Your task to perform on an android device: choose inbox layout in the gmail app Image 0: 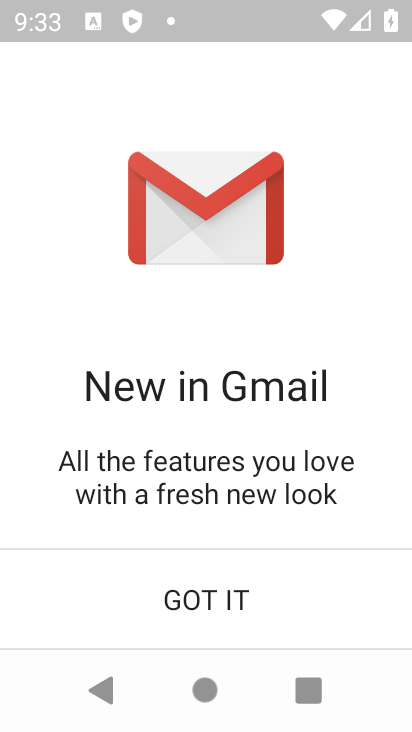
Step 0: click (200, 604)
Your task to perform on an android device: choose inbox layout in the gmail app Image 1: 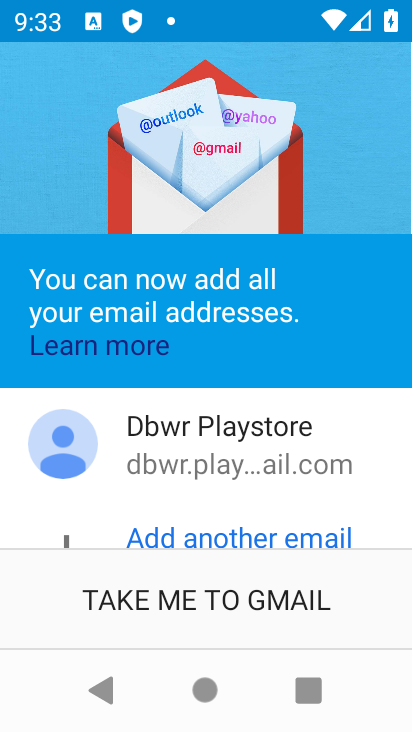
Step 1: drag from (219, 621) to (233, 353)
Your task to perform on an android device: choose inbox layout in the gmail app Image 2: 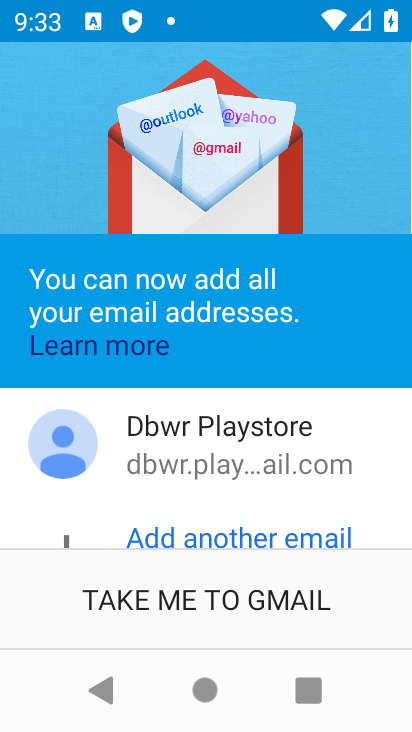
Step 2: click (289, 594)
Your task to perform on an android device: choose inbox layout in the gmail app Image 3: 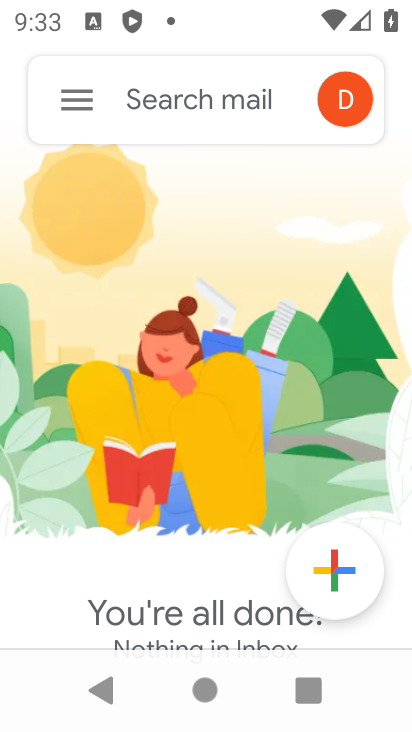
Step 3: click (75, 96)
Your task to perform on an android device: choose inbox layout in the gmail app Image 4: 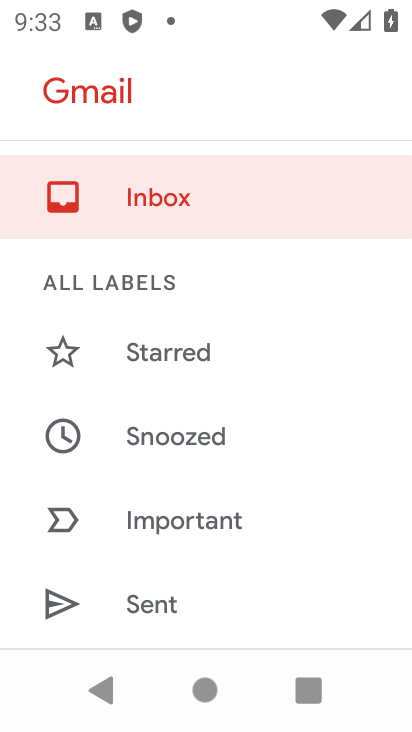
Step 4: drag from (287, 554) to (300, 114)
Your task to perform on an android device: choose inbox layout in the gmail app Image 5: 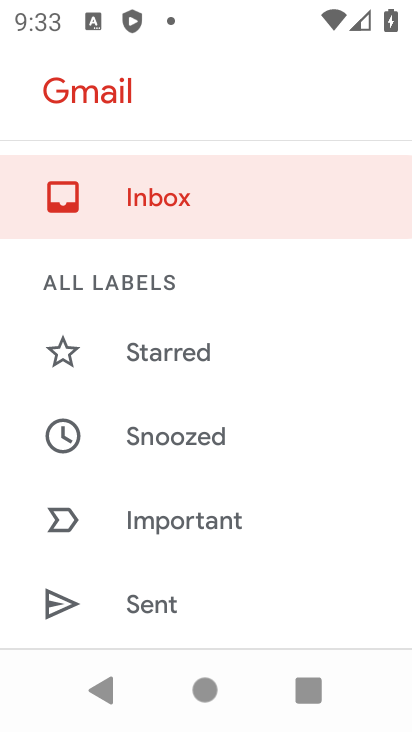
Step 5: drag from (197, 566) to (212, 121)
Your task to perform on an android device: choose inbox layout in the gmail app Image 6: 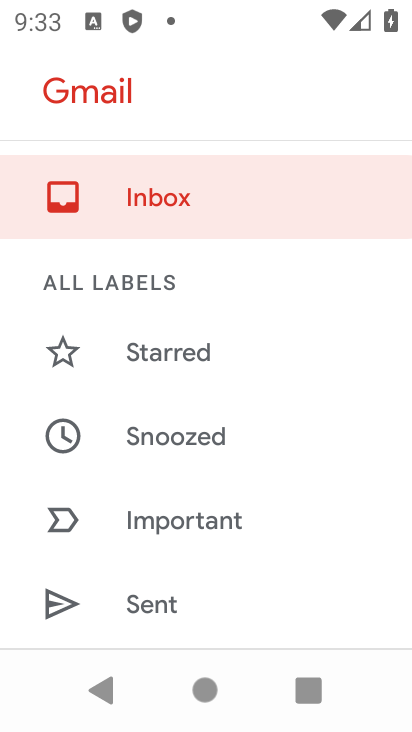
Step 6: drag from (213, 575) to (286, 181)
Your task to perform on an android device: choose inbox layout in the gmail app Image 7: 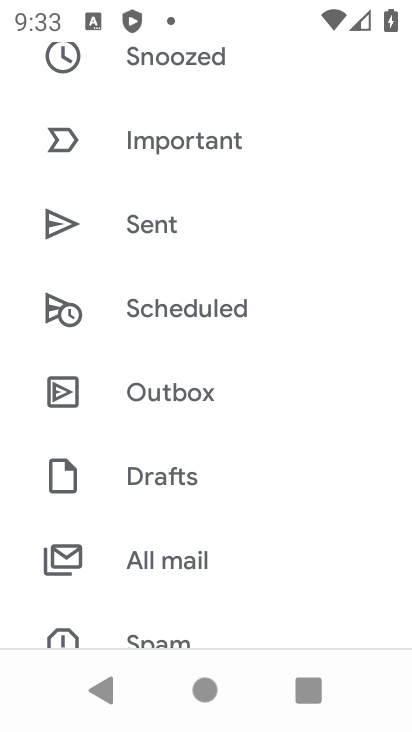
Step 7: drag from (265, 565) to (324, 105)
Your task to perform on an android device: choose inbox layout in the gmail app Image 8: 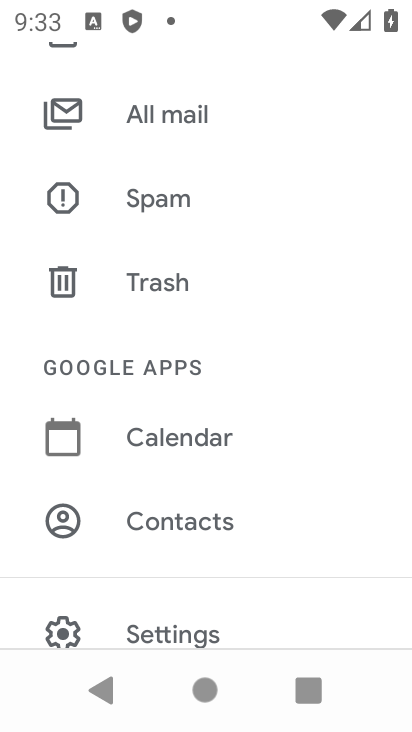
Step 8: drag from (202, 589) to (256, 155)
Your task to perform on an android device: choose inbox layout in the gmail app Image 9: 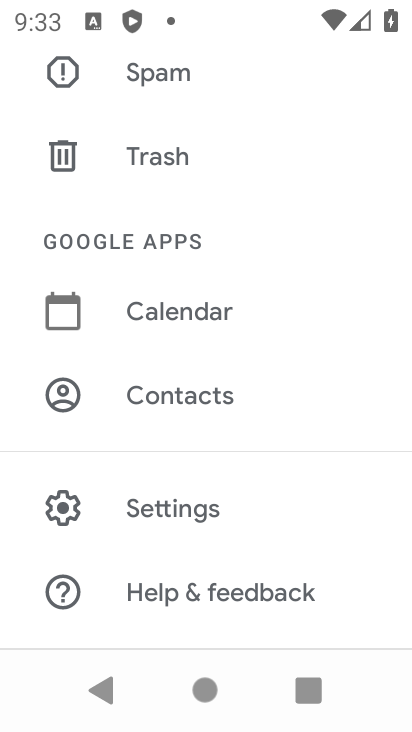
Step 9: click (189, 526)
Your task to perform on an android device: choose inbox layout in the gmail app Image 10: 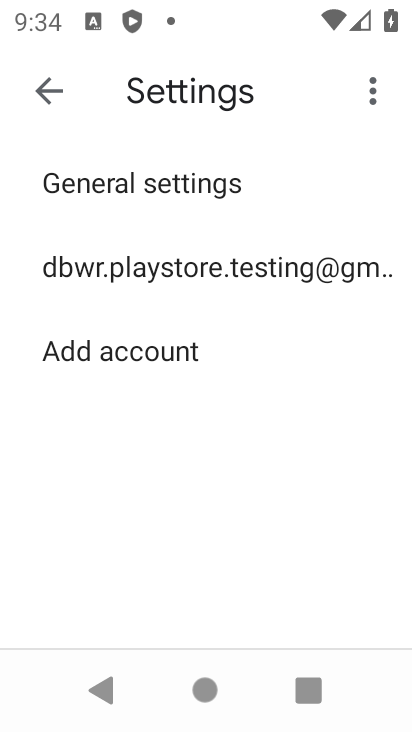
Step 10: click (101, 279)
Your task to perform on an android device: choose inbox layout in the gmail app Image 11: 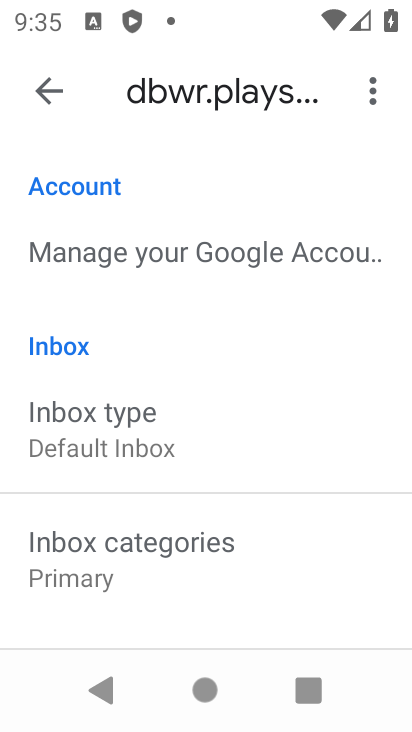
Step 11: click (109, 435)
Your task to perform on an android device: choose inbox layout in the gmail app Image 12: 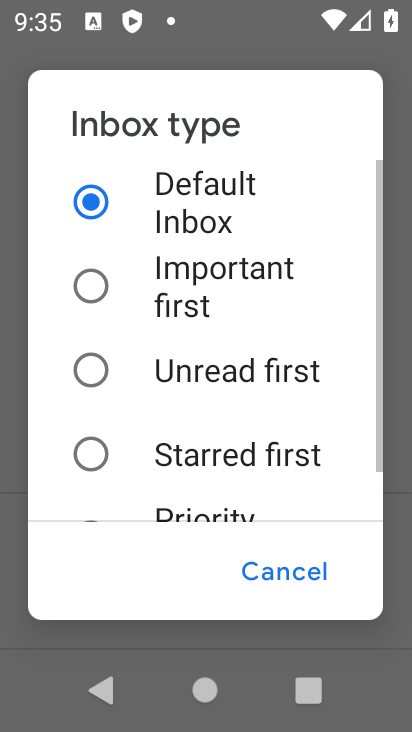
Step 12: click (82, 377)
Your task to perform on an android device: choose inbox layout in the gmail app Image 13: 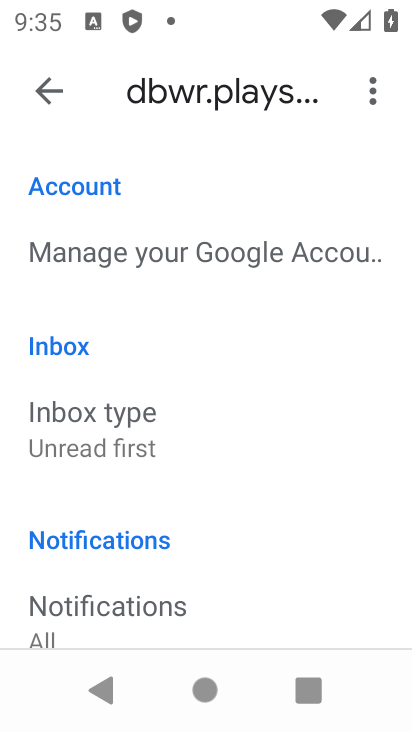
Step 13: task complete